Your task to perform on an android device: check android version Image 0: 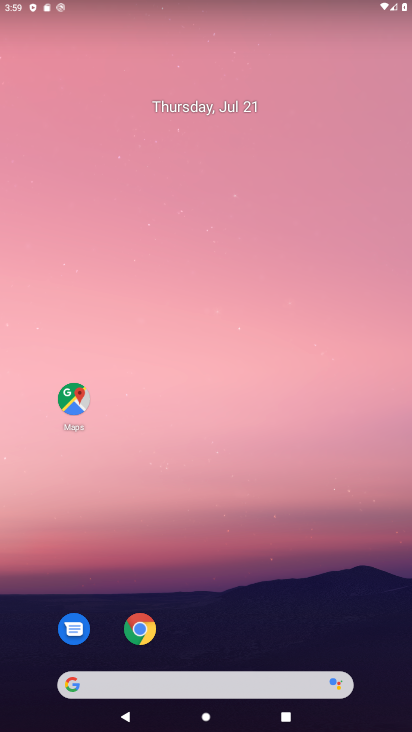
Step 0: press home button
Your task to perform on an android device: check android version Image 1: 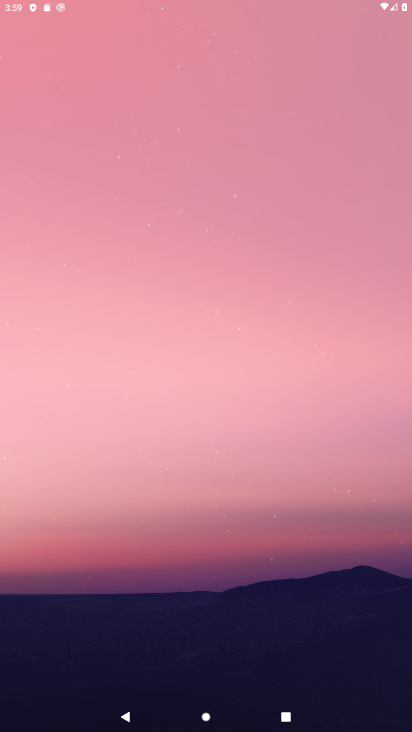
Step 1: press home button
Your task to perform on an android device: check android version Image 2: 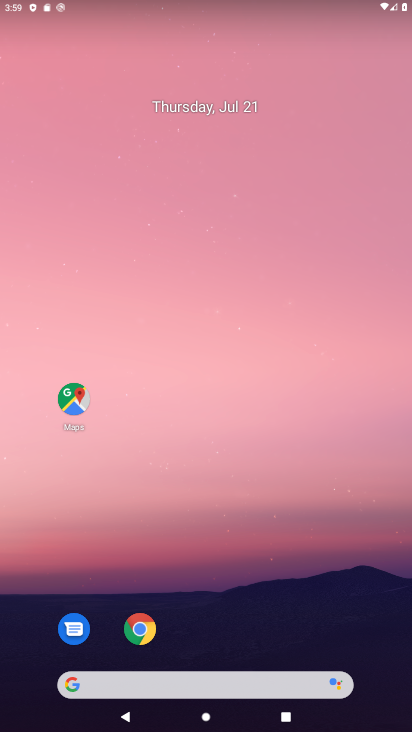
Step 2: drag from (217, 619) to (218, 193)
Your task to perform on an android device: check android version Image 3: 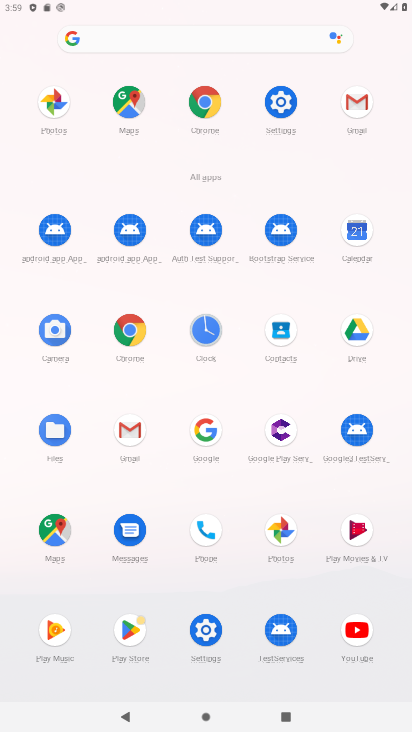
Step 3: click (268, 121)
Your task to perform on an android device: check android version Image 4: 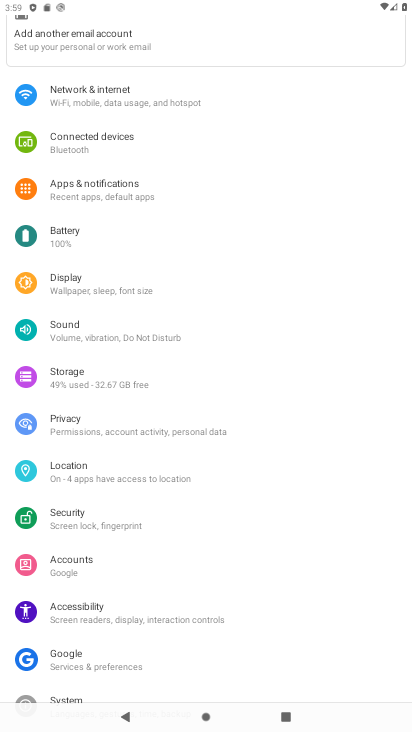
Step 4: drag from (193, 584) to (221, 15)
Your task to perform on an android device: check android version Image 5: 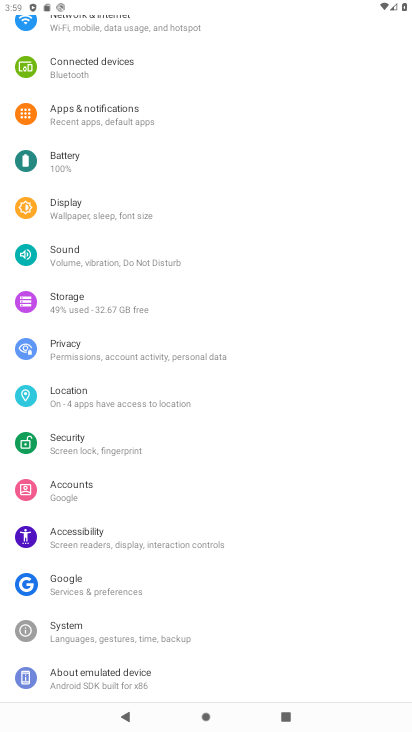
Step 5: click (147, 670)
Your task to perform on an android device: check android version Image 6: 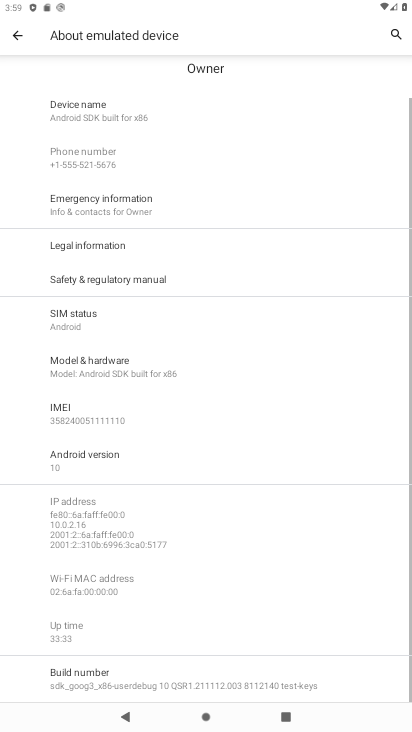
Step 6: click (122, 475)
Your task to perform on an android device: check android version Image 7: 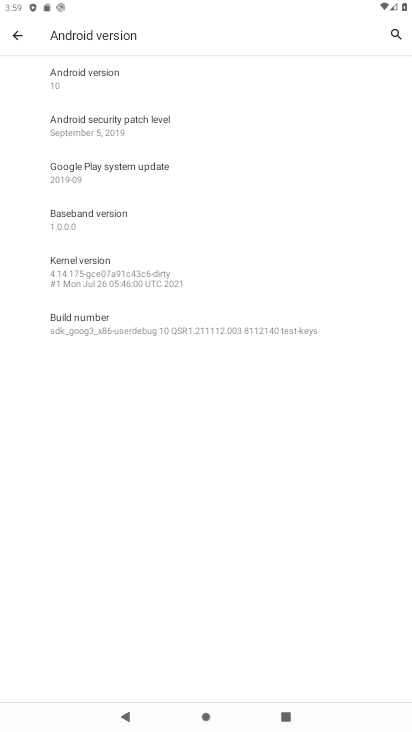
Step 7: click (110, 80)
Your task to perform on an android device: check android version Image 8: 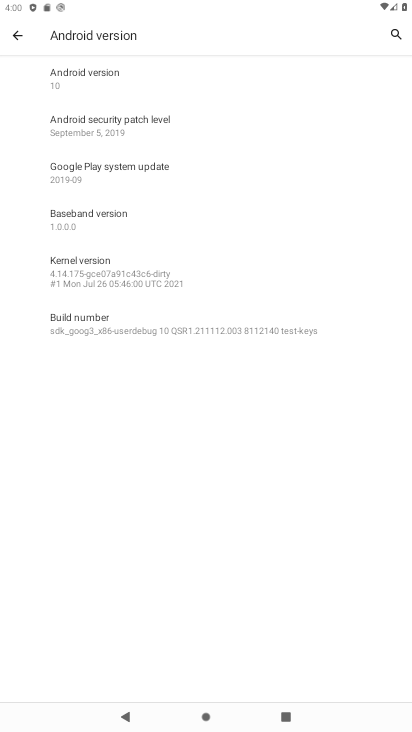
Step 8: task complete